Your task to perform on an android device: open a new tab in the chrome app Image 0: 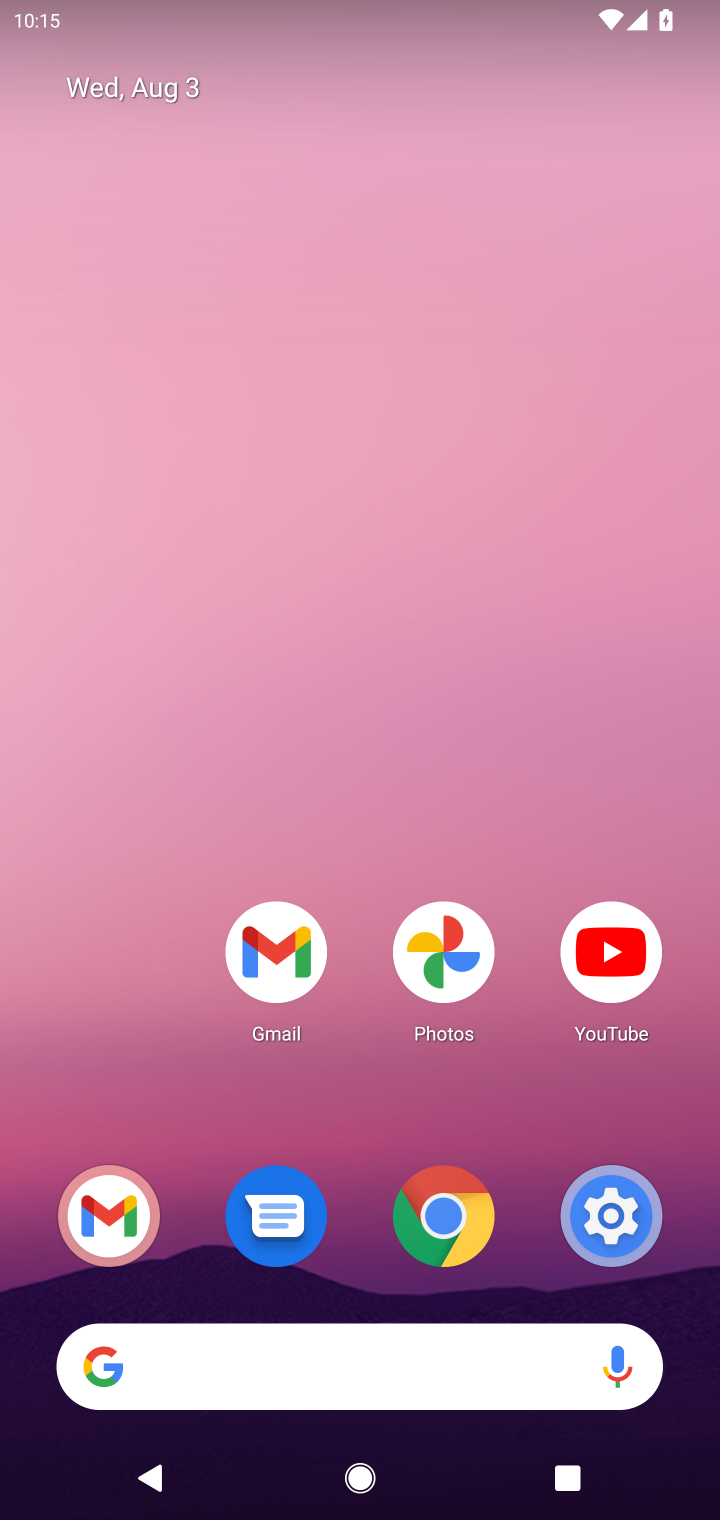
Step 0: click (450, 1232)
Your task to perform on an android device: open a new tab in the chrome app Image 1: 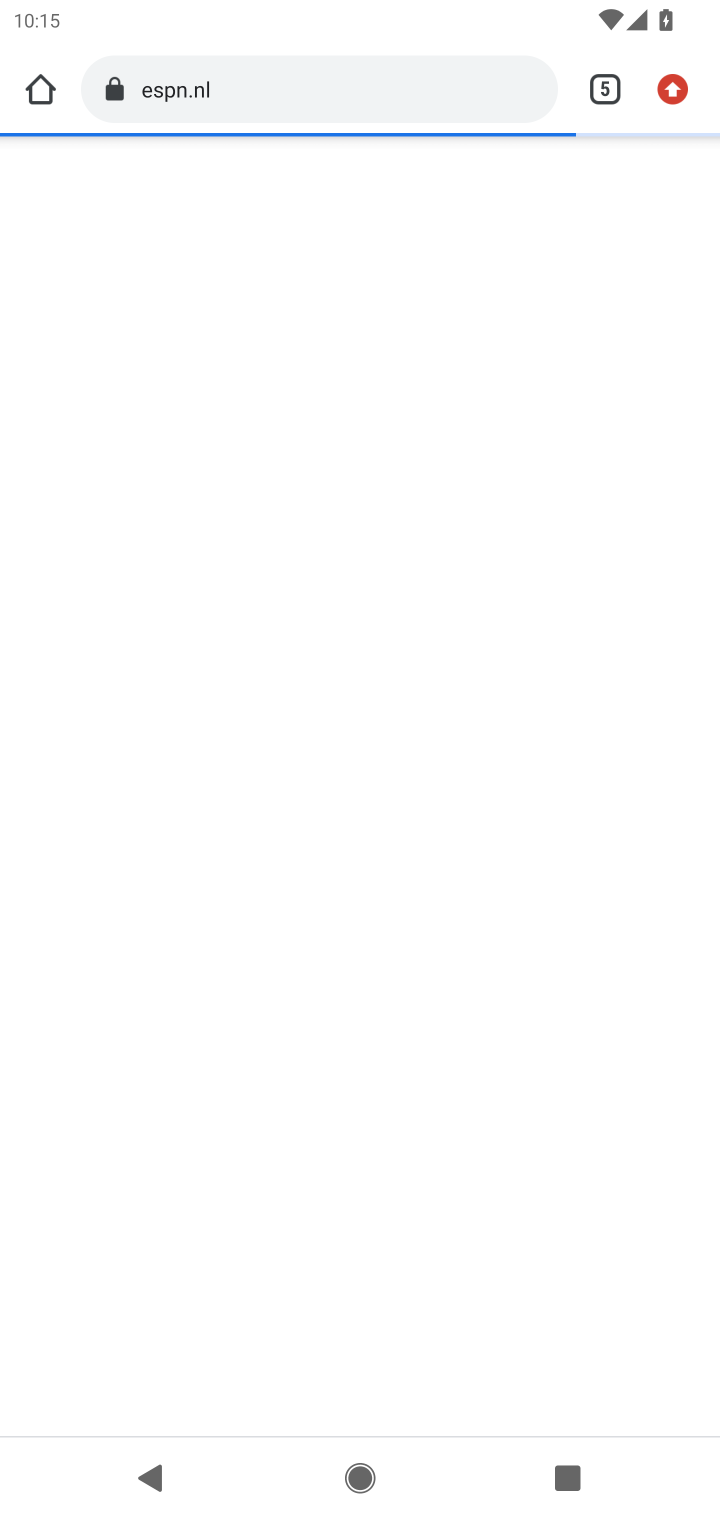
Step 1: click (601, 79)
Your task to perform on an android device: open a new tab in the chrome app Image 2: 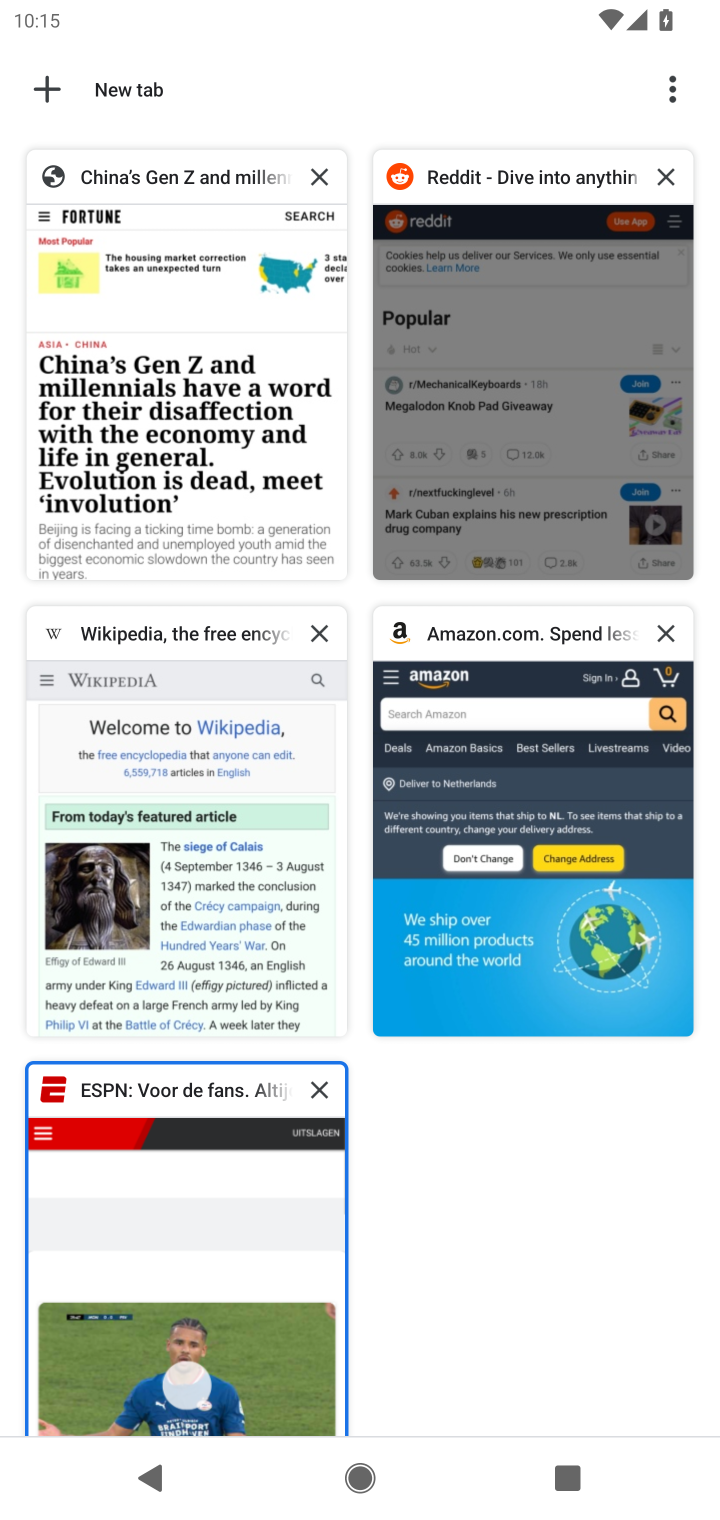
Step 2: click (50, 97)
Your task to perform on an android device: open a new tab in the chrome app Image 3: 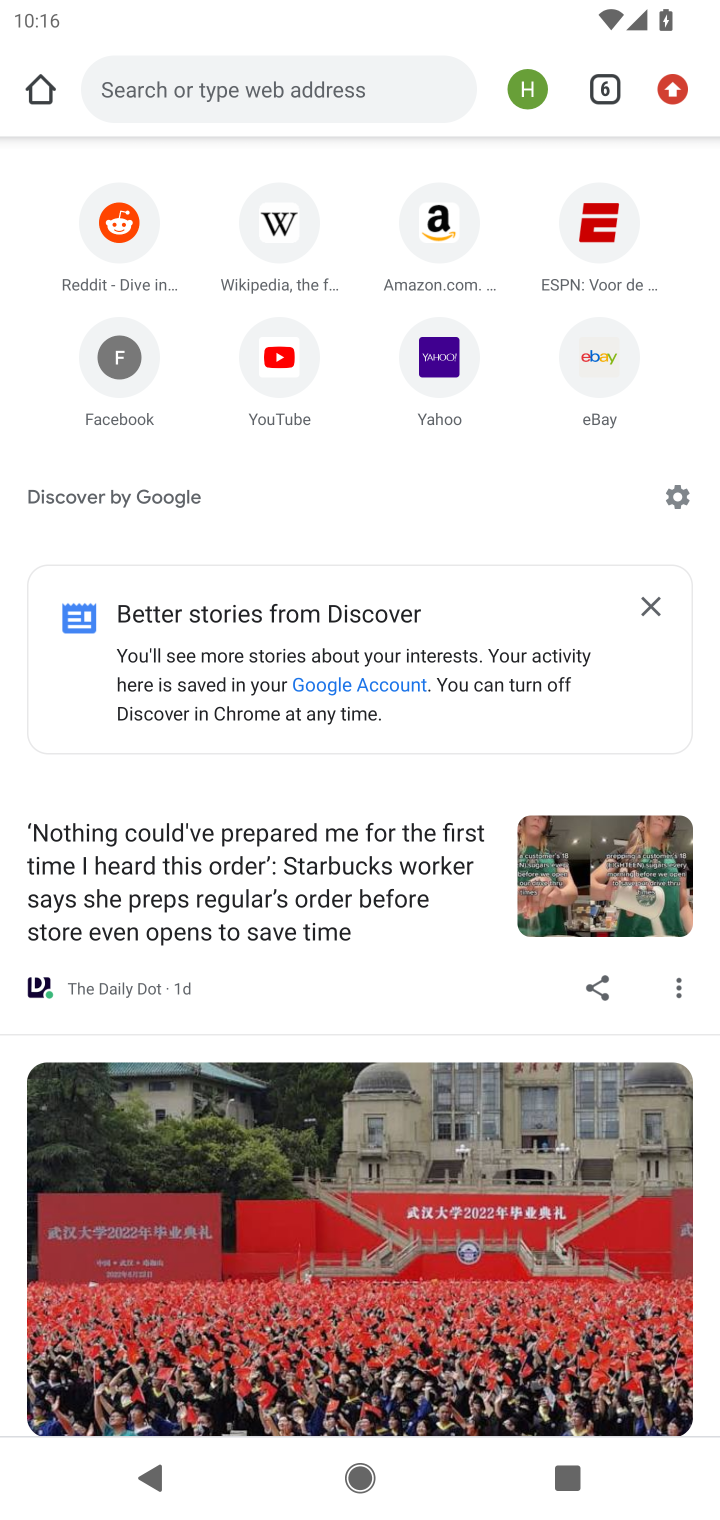
Step 3: task complete